Your task to perform on an android device: Go to internet settings Image 0: 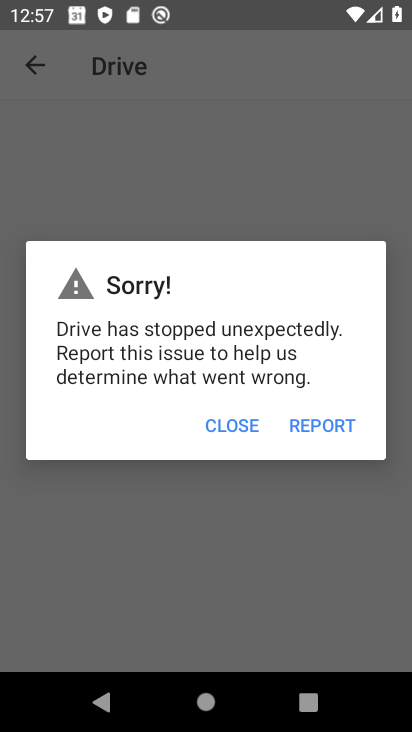
Step 0: press home button
Your task to perform on an android device: Go to internet settings Image 1: 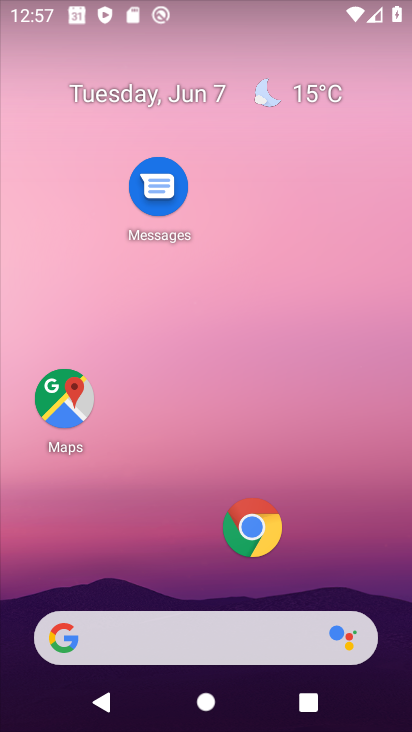
Step 1: drag from (254, 609) to (237, 378)
Your task to perform on an android device: Go to internet settings Image 2: 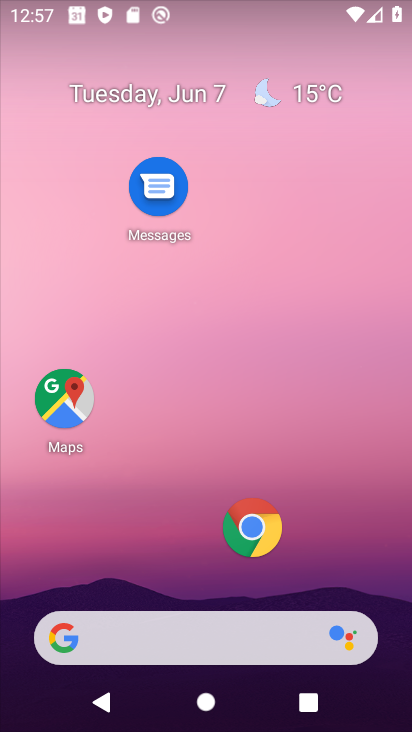
Step 2: drag from (193, 584) to (112, 238)
Your task to perform on an android device: Go to internet settings Image 3: 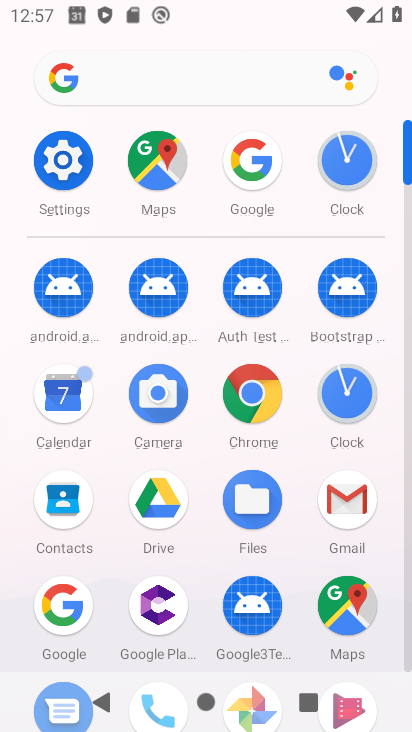
Step 3: click (65, 184)
Your task to perform on an android device: Go to internet settings Image 4: 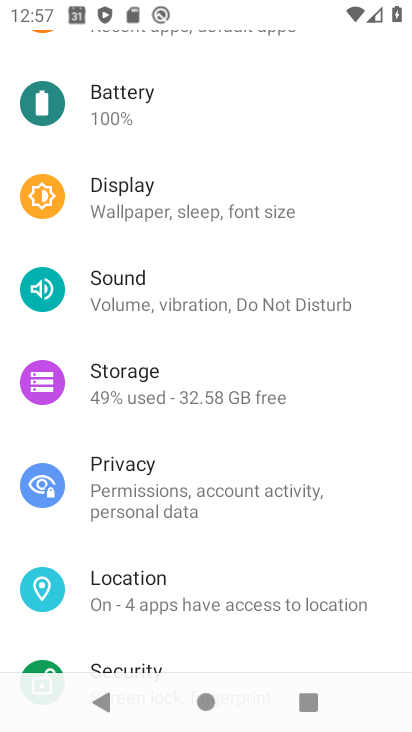
Step 4: drag from (194, 112) to (242, 645)
Your task to perform on an android device: Go to internet settings Image 5: 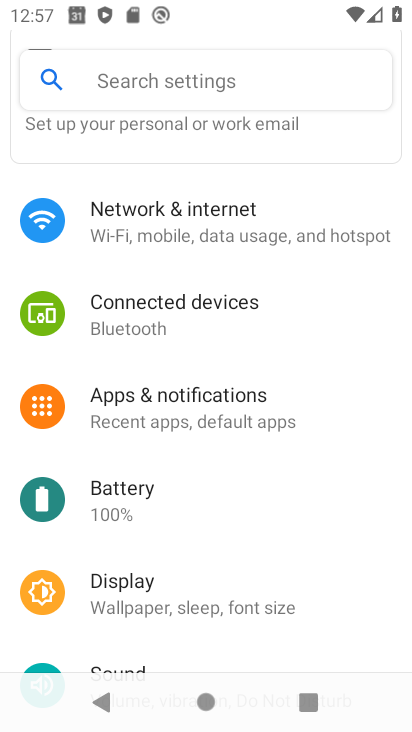
Step 5: click (177, 221)
Your task to perform on an android device: Go to internet settings Image 6: 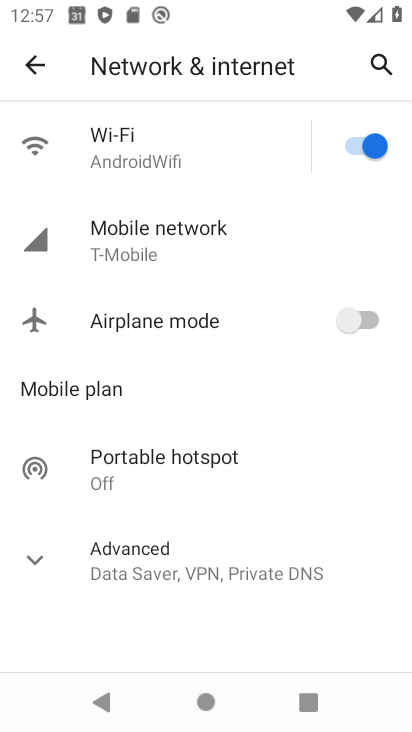
Step 6: click (203, 561)
Your task to perform on an android device: Go to internet settings Image 7: 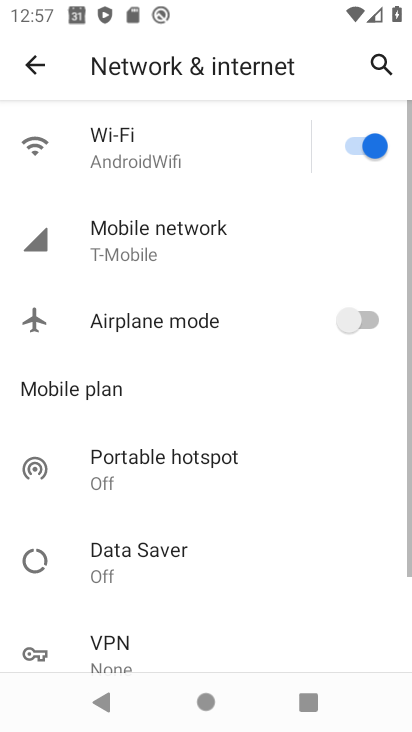
Step 7: task complete